Your task to perform on an android device: Is it going to rain tomorrow? Image 0: 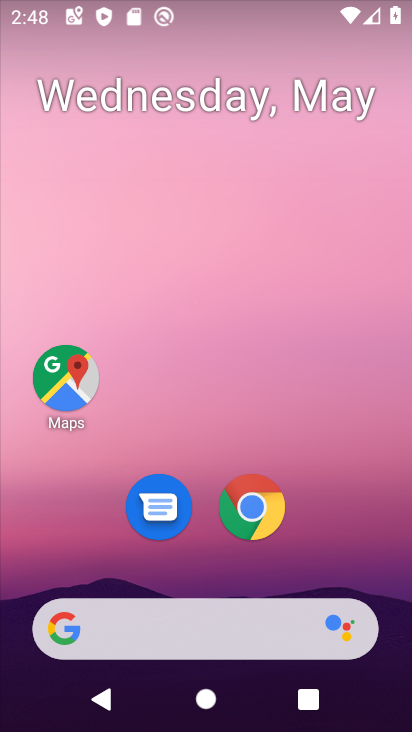
Step 0: click (162, 627)
Your task to perform on an android device: Is it going to rain tomorrow? Image 1: 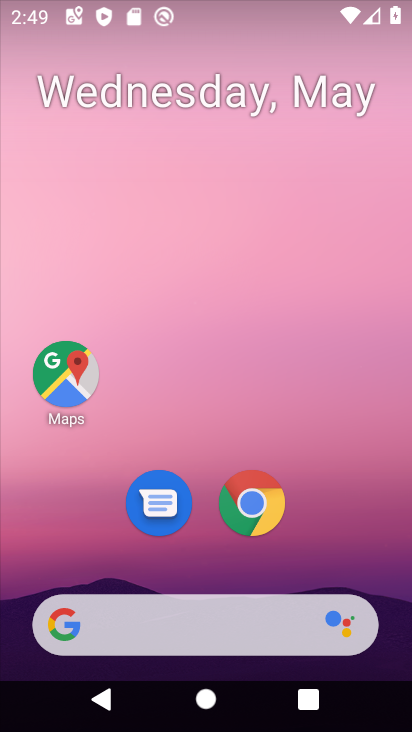
Step 1: drag from (129, 161) to (172, 25)
Your task to perform on an android device: Is it going to rain tomorrow? Image 2: 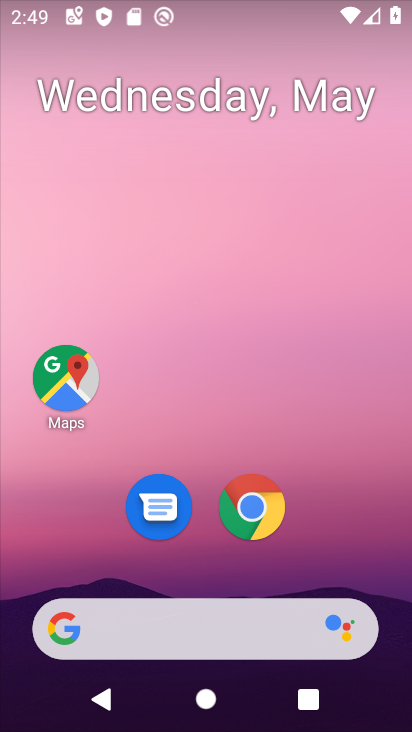
Step 2: drag from (183, 527) to (241, 25)
Your task to perform on an android device: Is it going to rain tomorrow? Image 3: 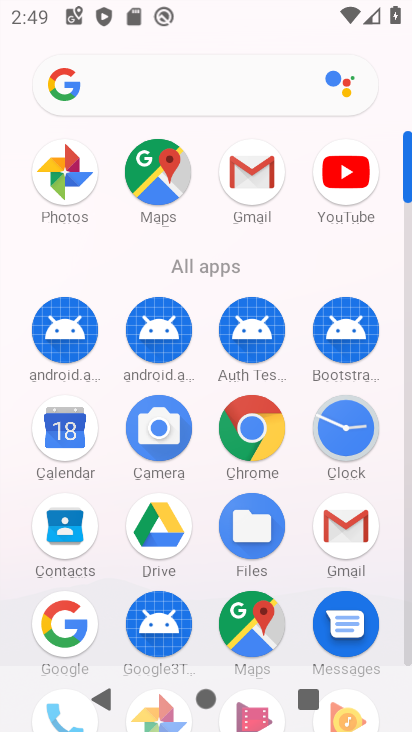
Step 3: click (127, 85)
Your task to perform on an android device: Is it going to rain tomorrow? Image 4: 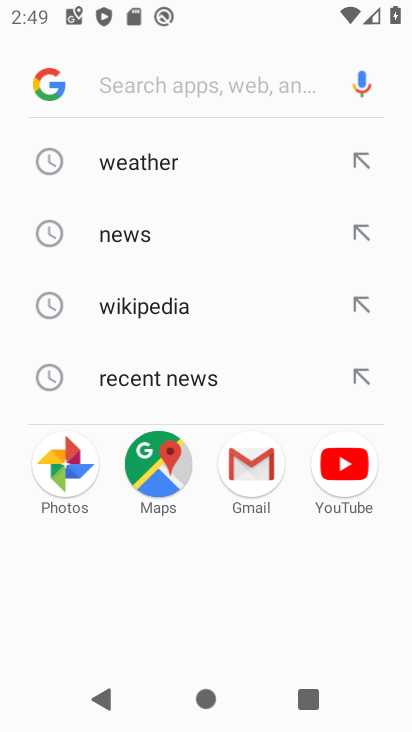
Step 4: click (128, 174)
Your task to perform on an android device: Is it going to rain tomorrow? Image 5: 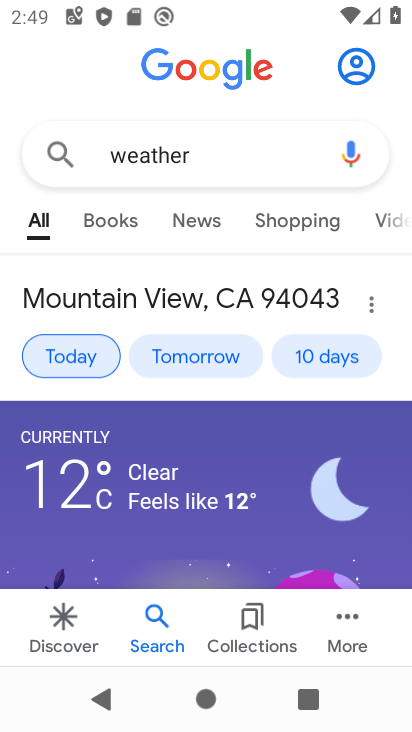
Step 5: click (180, 355)
Your task to perform on an android device: Is it going to rain tomorrow? Image 6: 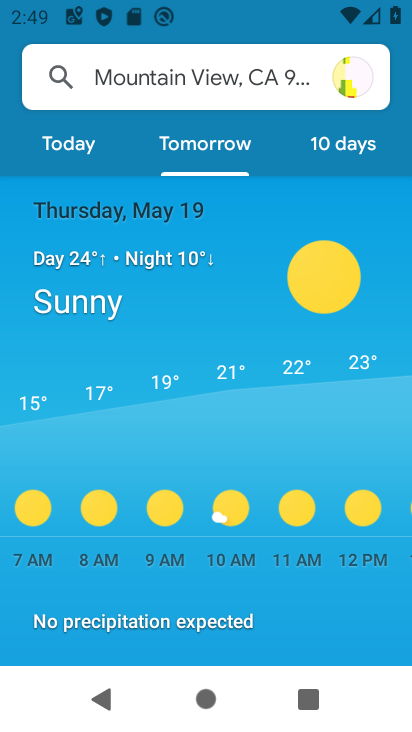
Step 6: task complete